Your task to perform on an android device: Open calendar and show me the fourth week of next month Image 0: 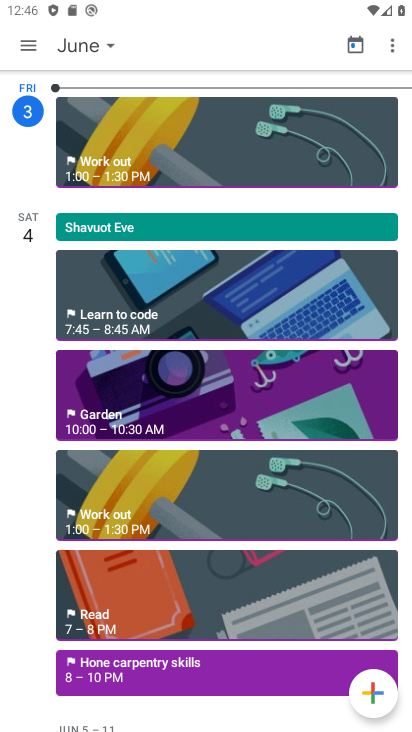
Step 0: click (32, 46)
Your task to perform on an android device: Open calendar and show me the fourth week of next month Image 1: 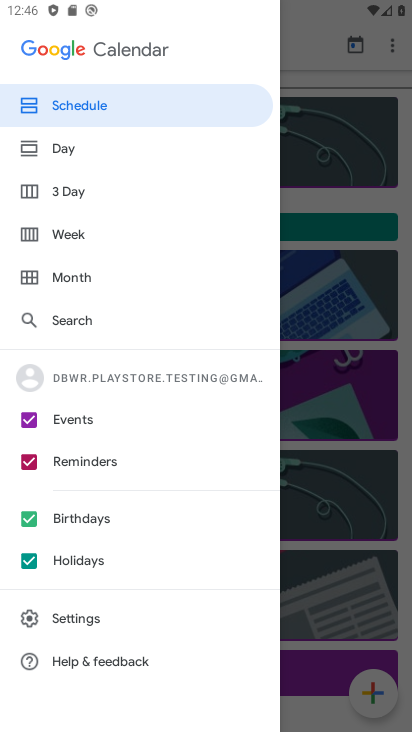
Step 1: click (77, 277)
Your task to perform on an android device: Open calendar and show me the fourth week of next month Image 2: 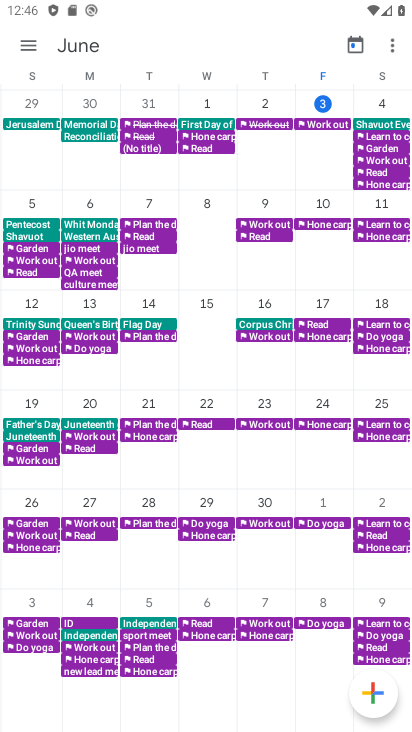
Step 2: drag from (348, 458) to (11, 409)
Your task to perform on an android device: Open calendar and show me the fourth week of next month Image 3: 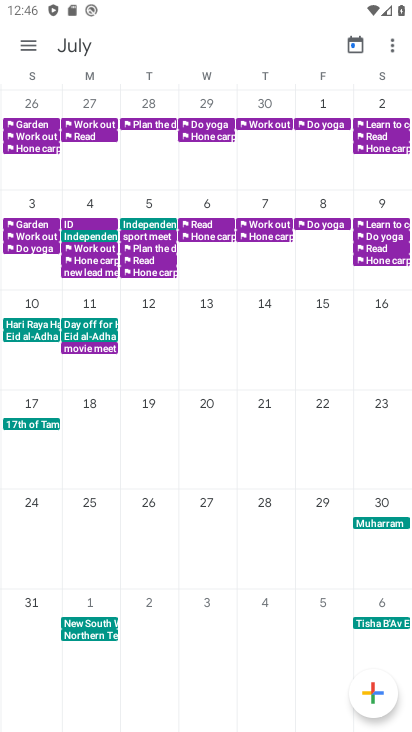
Step 3: click (96, 505)
Your task to perform on an android device: Open calendar and show me the fourth week of next month Image 4: 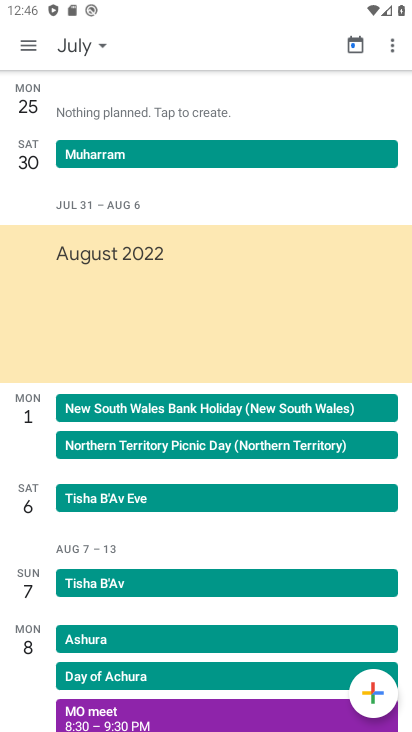
Step 4: task complete